Your task to perform on an android device: open app "YouTube Kids" Image 0: 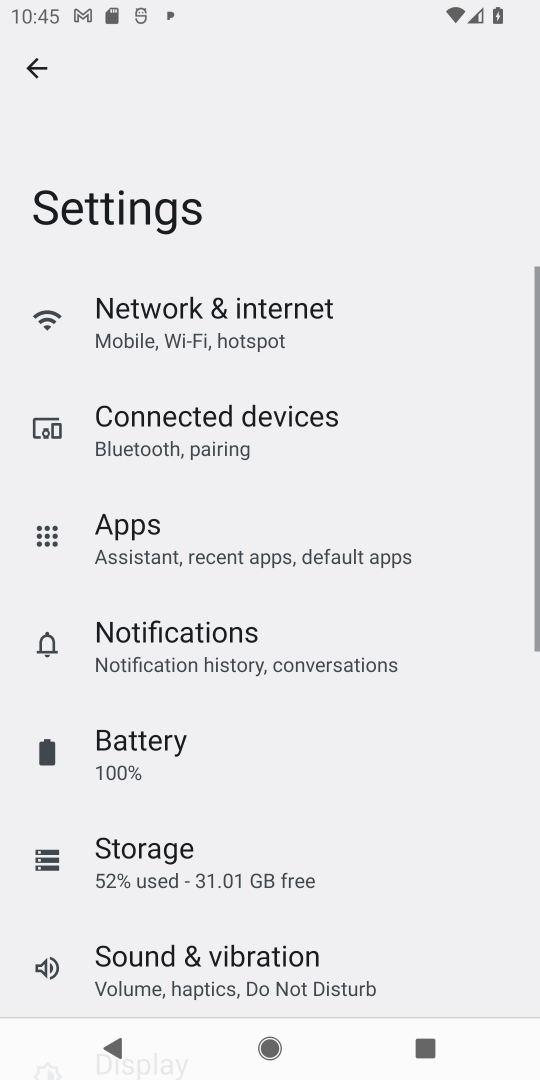
Step 0: click (526, 459)
Your task to perform on an android device: open app "YouTube Kids" Image 1: 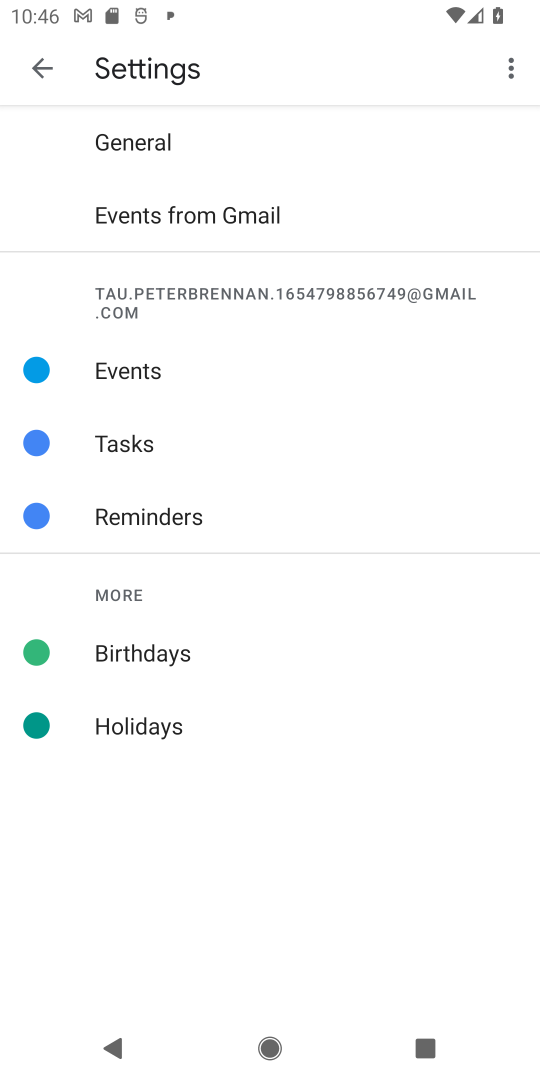
Step 1: press home button
Your task to perform on an android device: open app "YouTube Kids" Image 2: 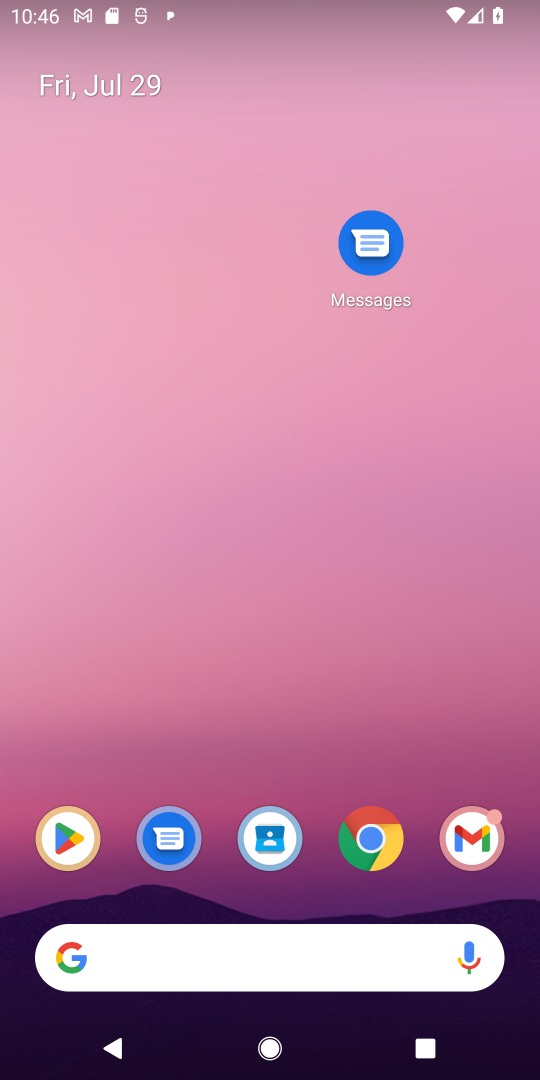
Step 2: click (43, 855)
Your task to perform on an android device: open app "YouTube Kids" Image 3: 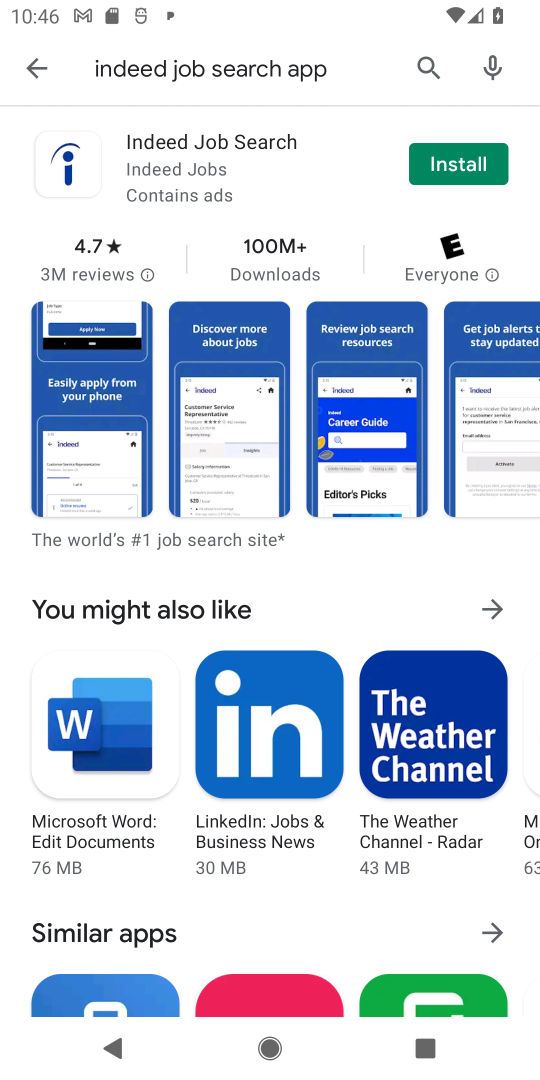
Step 3: click (230, 78)
Your task to perform on an android device: open app "YouTube Kids" Image 4: 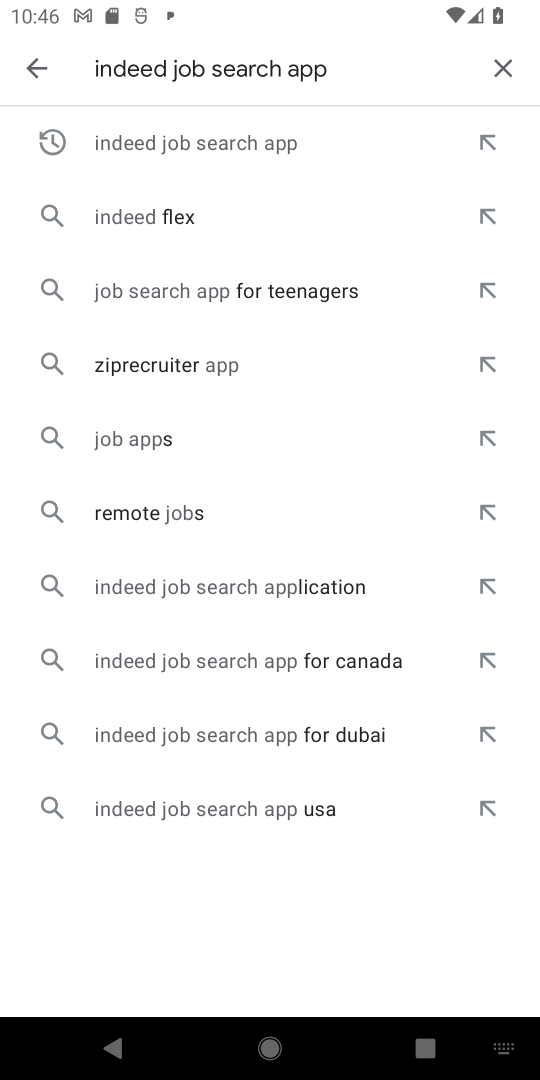
Step 4: click (498, 58)
Your task to perform on an android device: open app "YouTube Kids" Image 5: 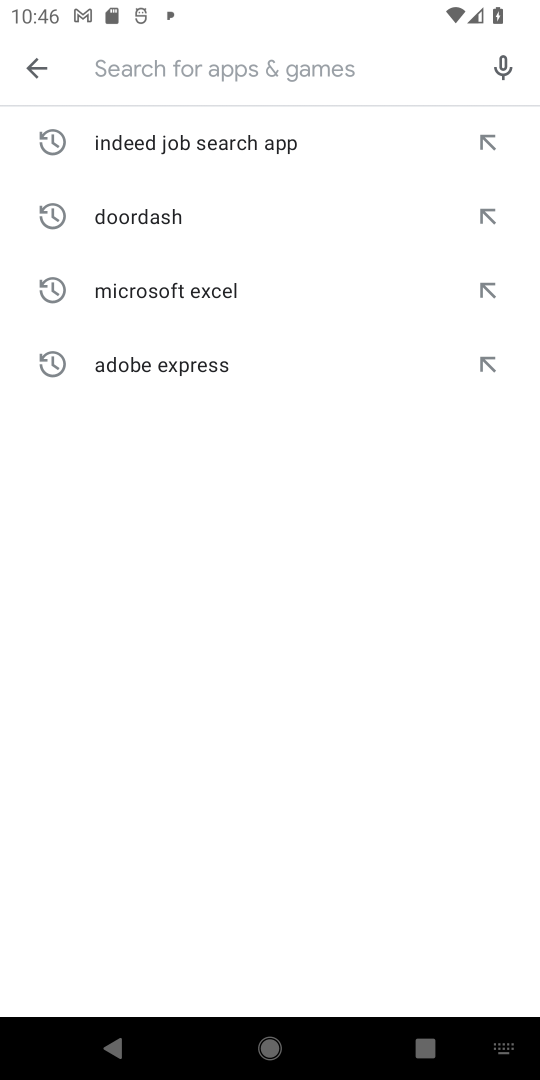
Step 5: type "youtube Kids"
Your task to perform on an android device: open app "YouTube Kids" Image 6: 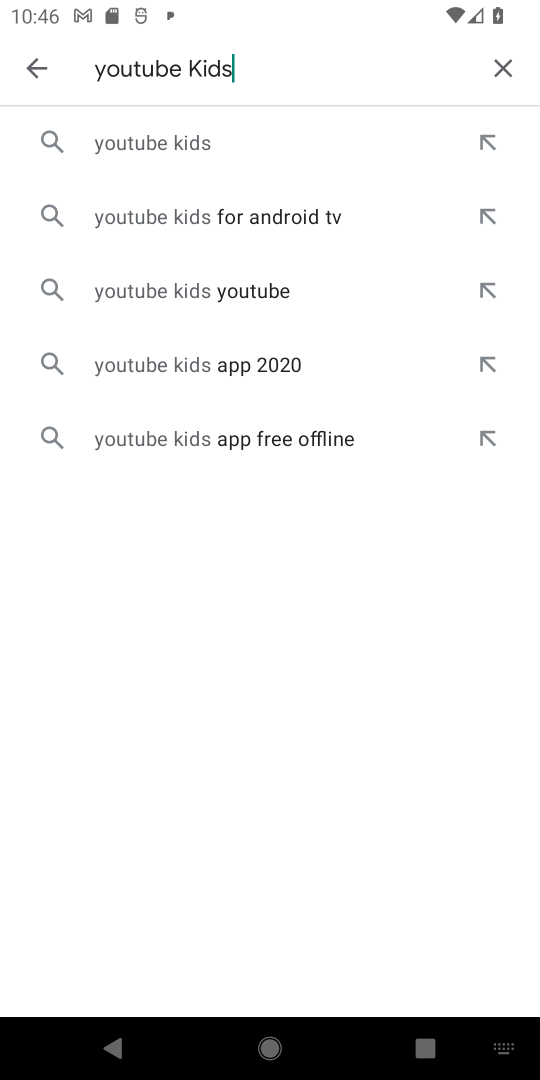
Step 6: click (183, 144)
Your task to perform on an android device: open app "YouTube Kids" Image 7: 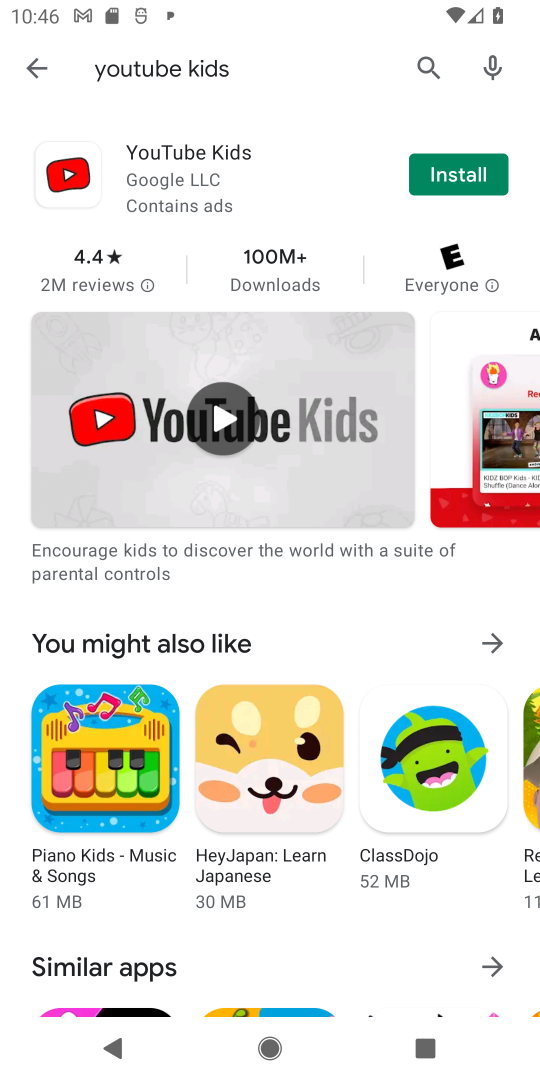
Step 7: task complete